Your task to perform on an android device: Go to eBay Image 0: 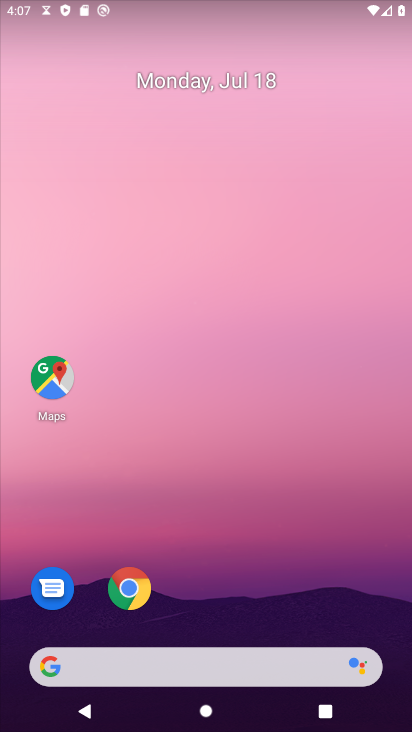
Step 0: click (20, 594)
Your task to perform on an android device: Go to eBay Image 1: 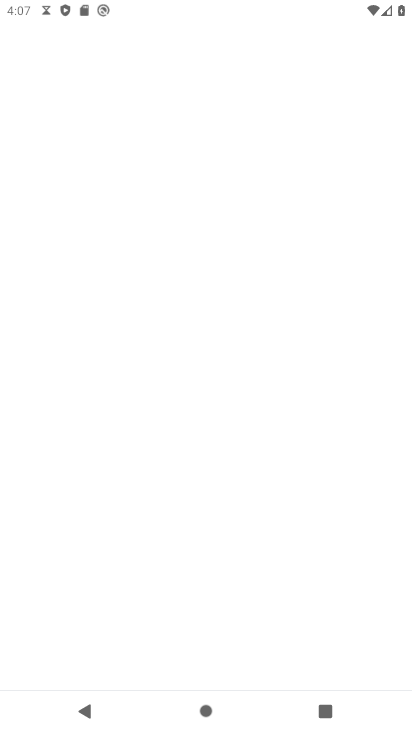
Step 1: click (125, 661)
Your task to perform on an android device: Go to eBay Image 2: 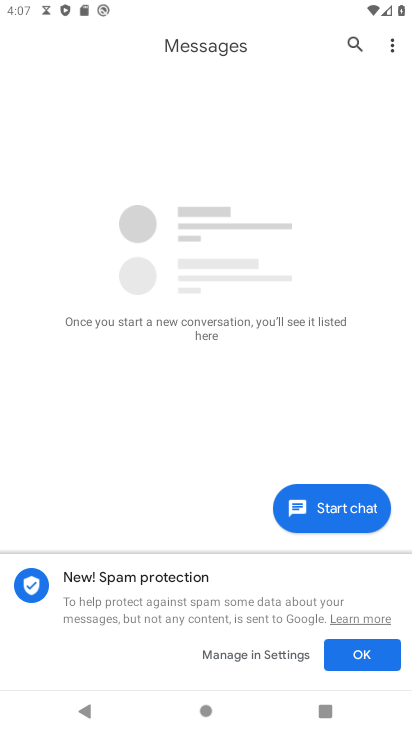
Step 2: press home button
Your task to perform on an android device: Go to eBay Image 3: 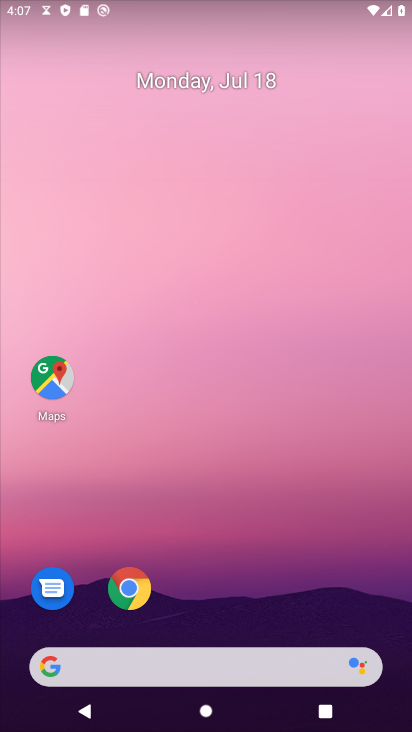
Step 3: click (119, 665)
Your task to perform on an android device: Go to eBay Image 4: 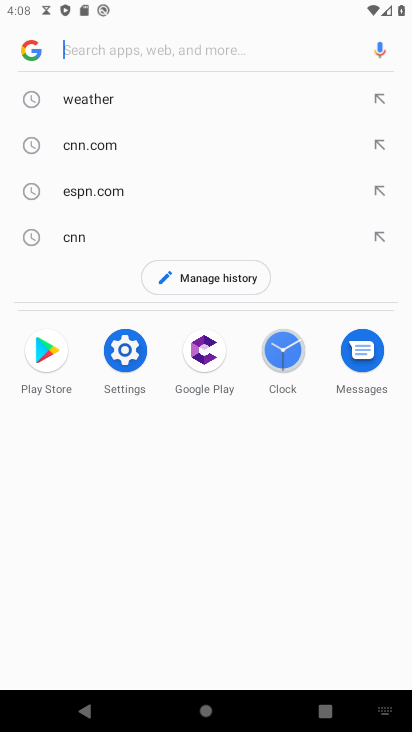
Step 4: type "eBay"
Your task to perform on an android device: Go to eBay Image 5: 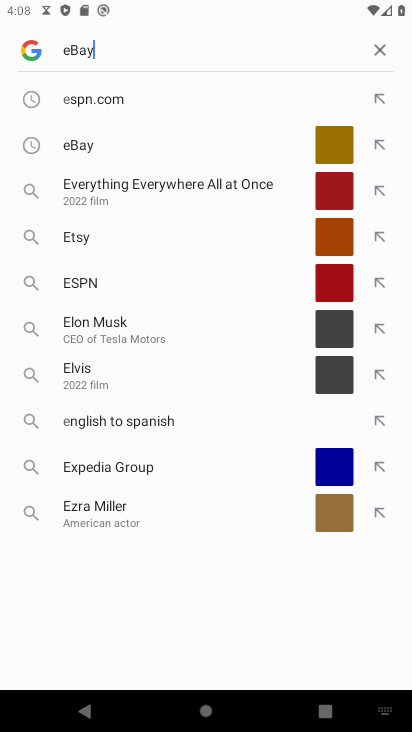
Step 5: type ""
Your task to perform on an android device: Go to eBay Image 6: 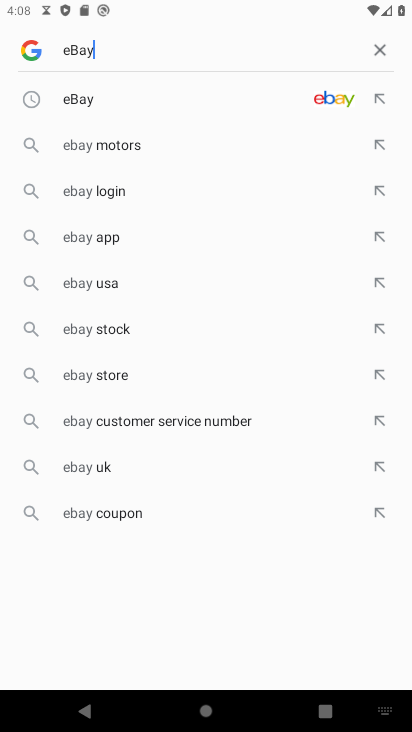
Step 6: click (173, 97)
Your task to perform on an android device: Go to eBay Image 7: 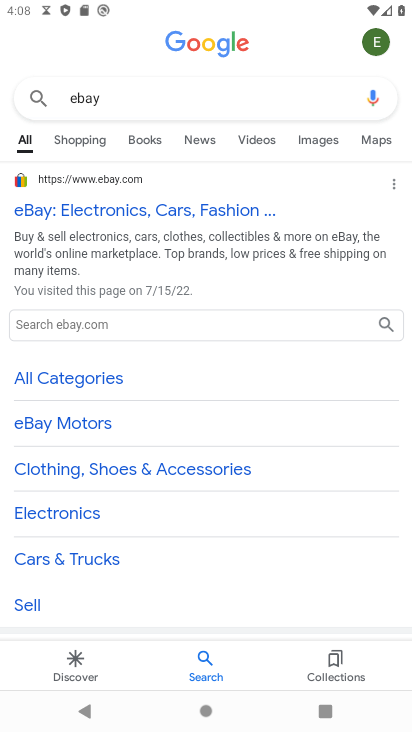
Step 7: task complete